Your task to perform on an android device: turn off notifications in google photos Image 0: 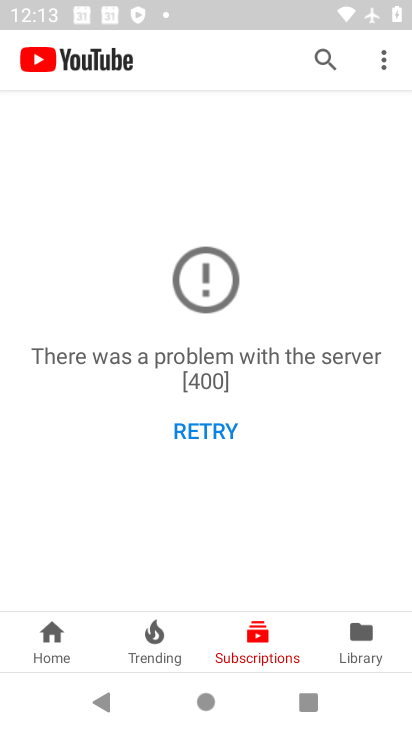
Step 0: press back button
Your task to perform on an android device: turn off notifications in google photos Image 1: 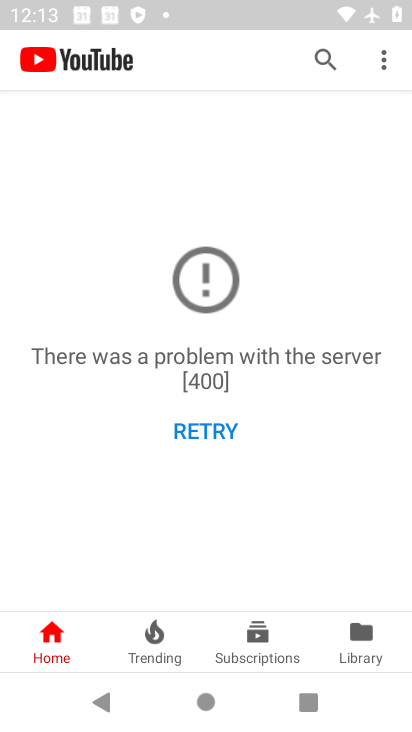
Step 1: press home button
Your task to perform on an android device: turn off notifications in google photos Image 2: 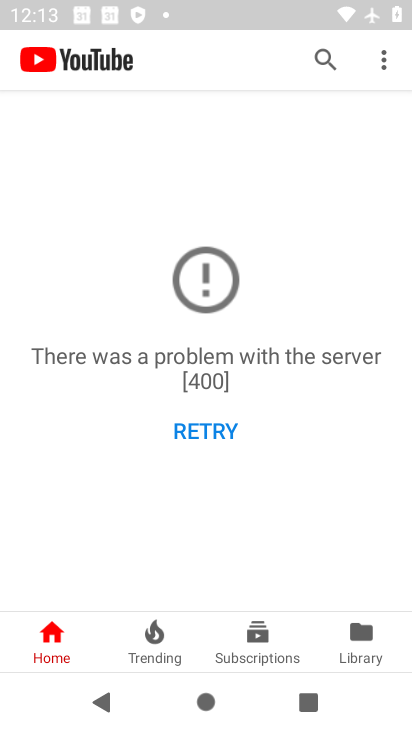
Step 2: press home button
Your task to perform on an android device: turn off notifications in google photos Image 3: 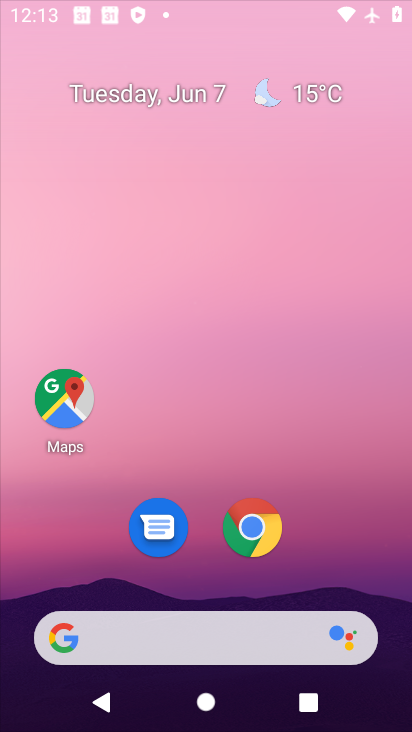
Step 3: press home button
Your task to perform on an android device: turn off notifications in google photos Image 4: 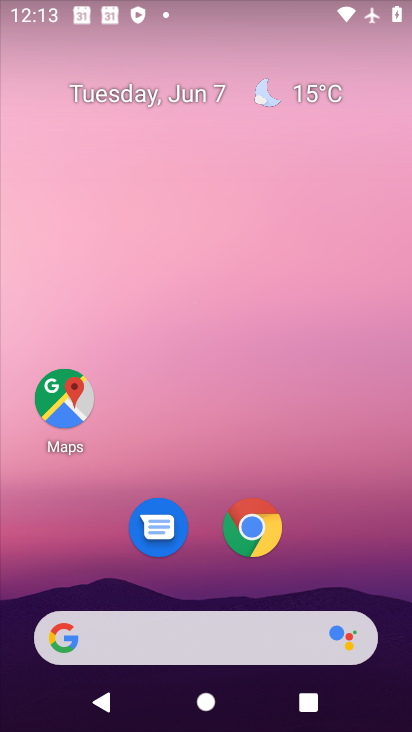
Step 4: press home button
Your task to perform on an android device: turn off notifications in google photos Image 5: 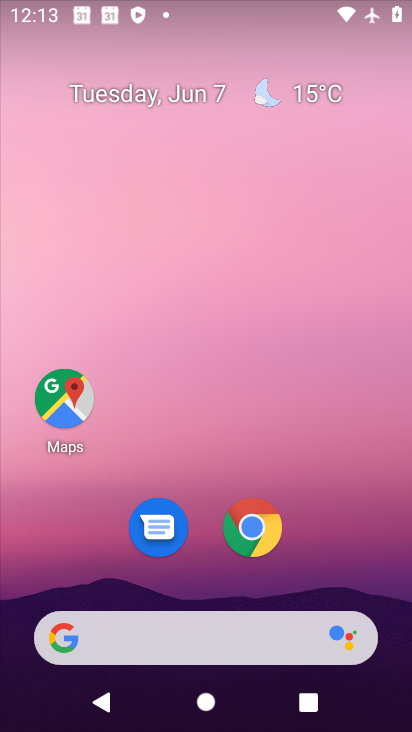
Step 5: drag from (269, 623) to (210, 43)
Your task to perform on an android device: turn off notifications in google photos Image 6: 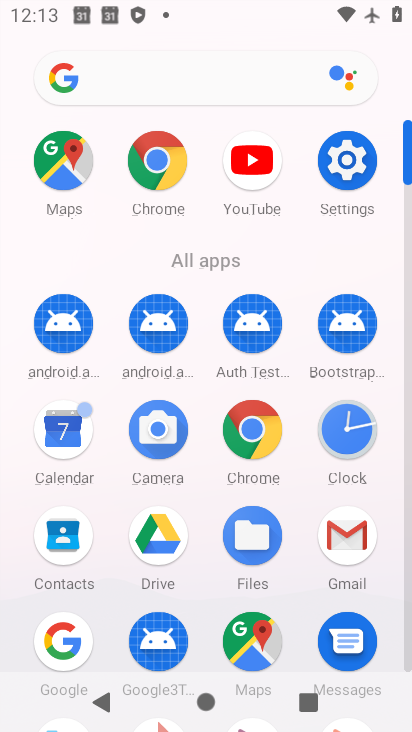
Step 6: drag from (230, 527) to (221, 279)
Your task to perform on an android device: turn off notifications in google photos Image 7: 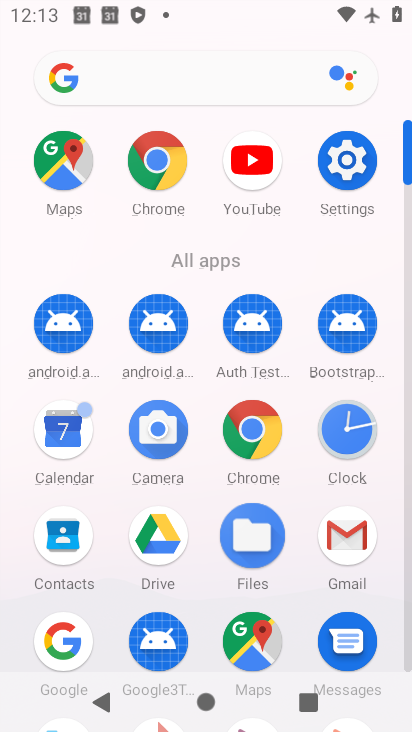
Step 7: drag from (197, 411) to (206, 235)
Your task to perform on an android device: turn off notifications in google photos Image 8: 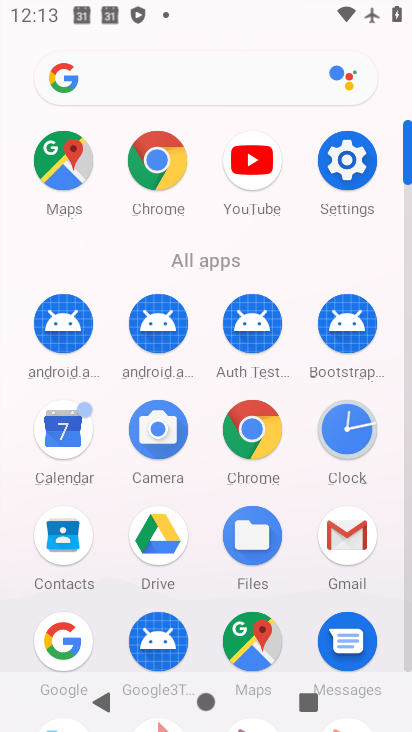
Step 8: drag from (189, 493) to (154, 240)
Your task to perform on an android device: turn off notifications in google photos Image 9: 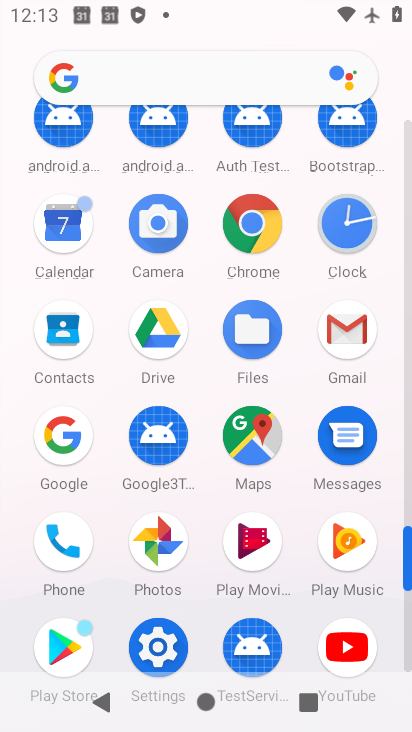
Step 9: drag from (180, 443) to (192, 280)
Your task to perform on an android device: turn off notifications in google photos Image 10: 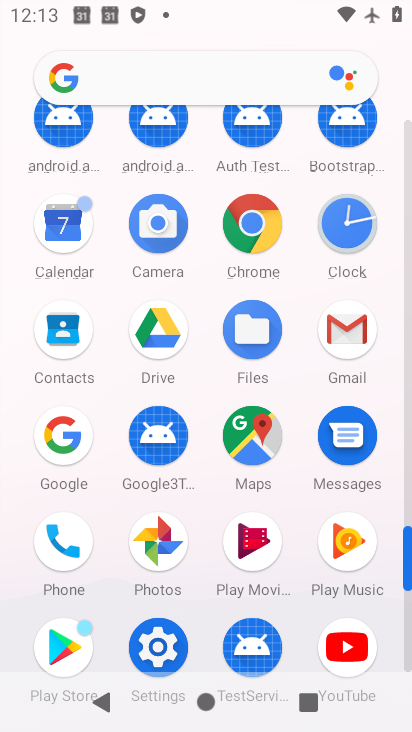
Step 10: drag from (197, 507) to (196, 245)
Your task to perform on an android device: turn off notifications in google photos Image 11: 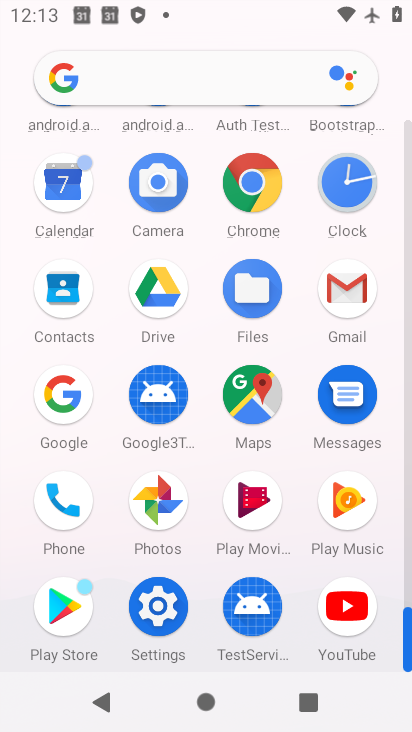
Step 11: click (166, 504)
Your task to perform on an android device: turn off notifications in google photos Image 12: 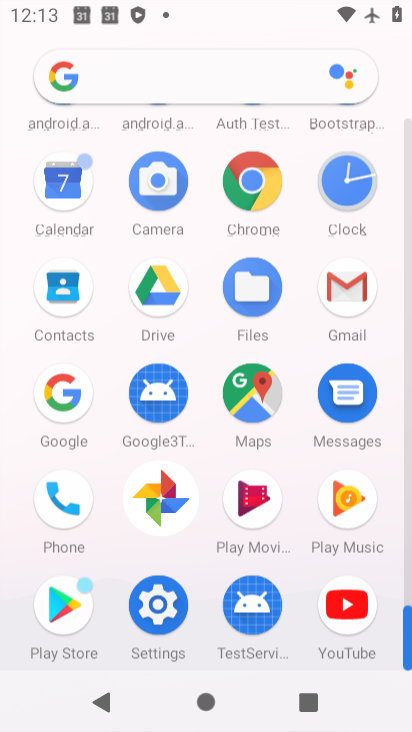
Step 12: click (166, 504)
Your task to perform on an android device: turn off notifications in google photos Image 13: 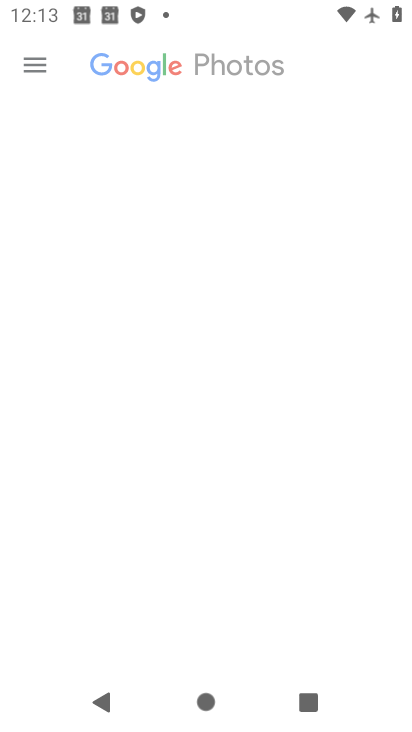
Step 13: click (166, 504)
Your task to perform on an android device: turn off notifications in google photos Image 14: 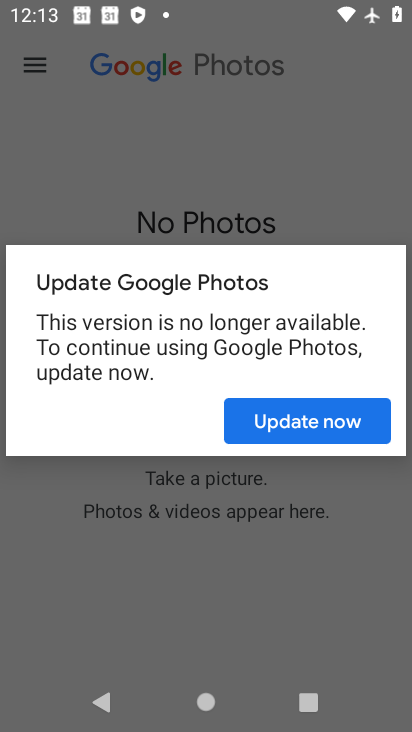
Step 14: click (310, 162)
Your task to perform on an android device: turn off notifications in google photos Image 15: 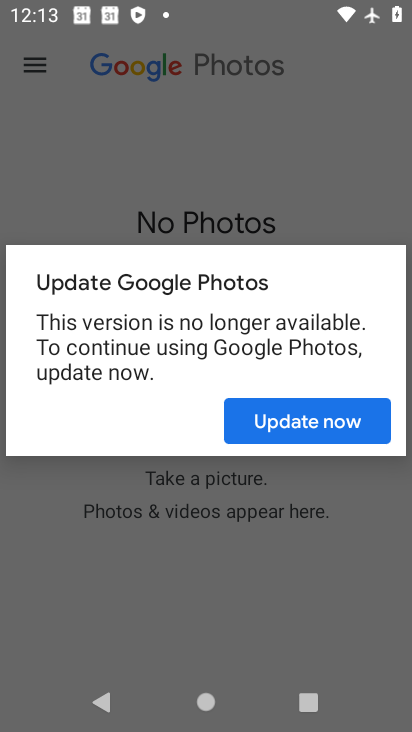
Step 15: click (322, 423)
Your task to perform on an android device: turn off notifications in google photos Image 16: 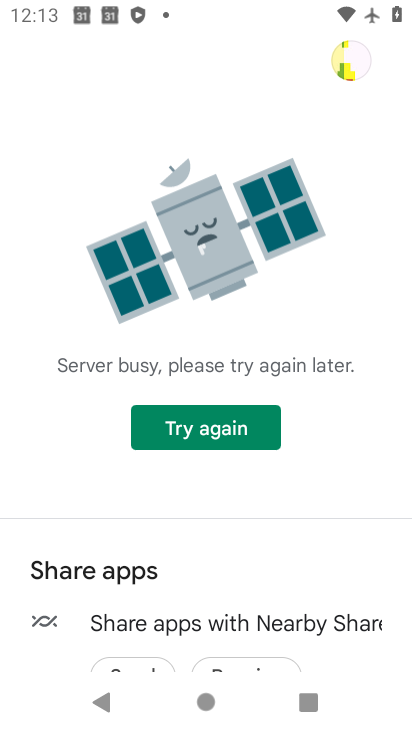
Step 16: task complete